Your task to perform on an android device: Open calendar and show me the first week of next month Image 0: 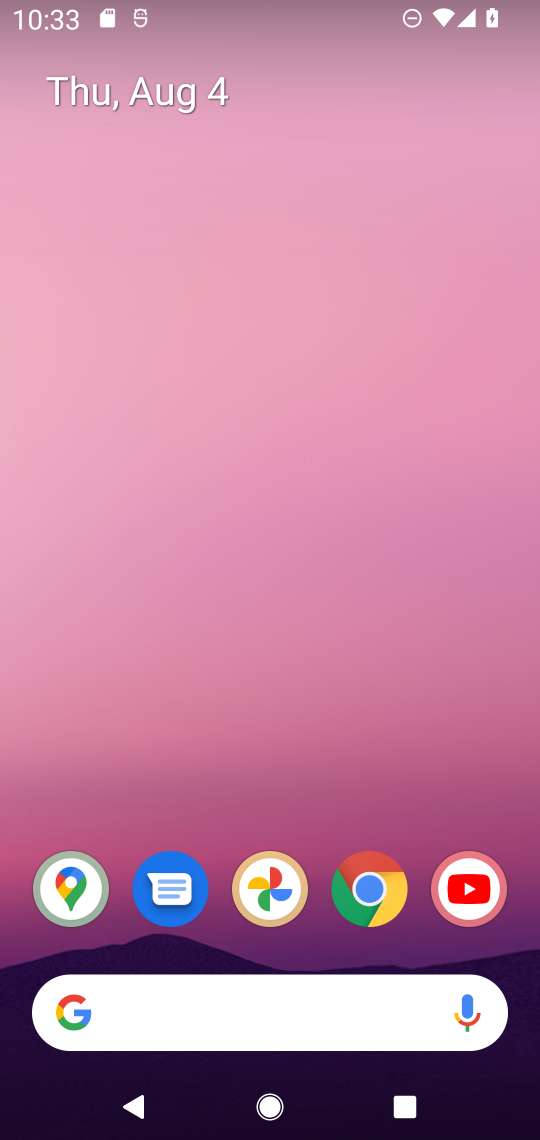
Step 0: press home button
Your task to perform on an android device: Open calendar and show me the first week of next month Image 1: 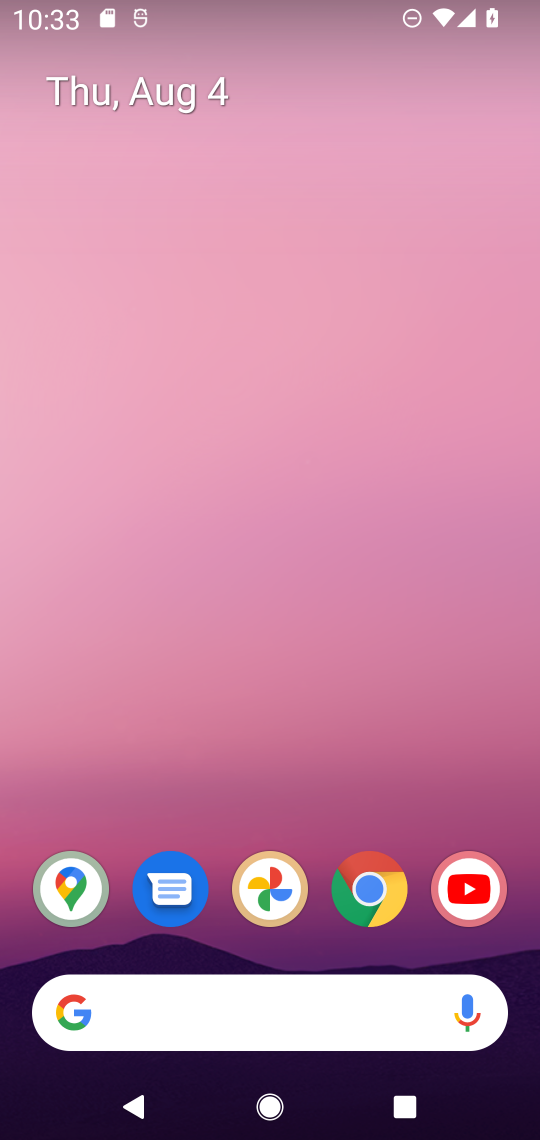
Step 1: drag from (395, 808) to (415, 301)
Your task to perform on an android device: Open calendar and show me the first week of next month Image 2: 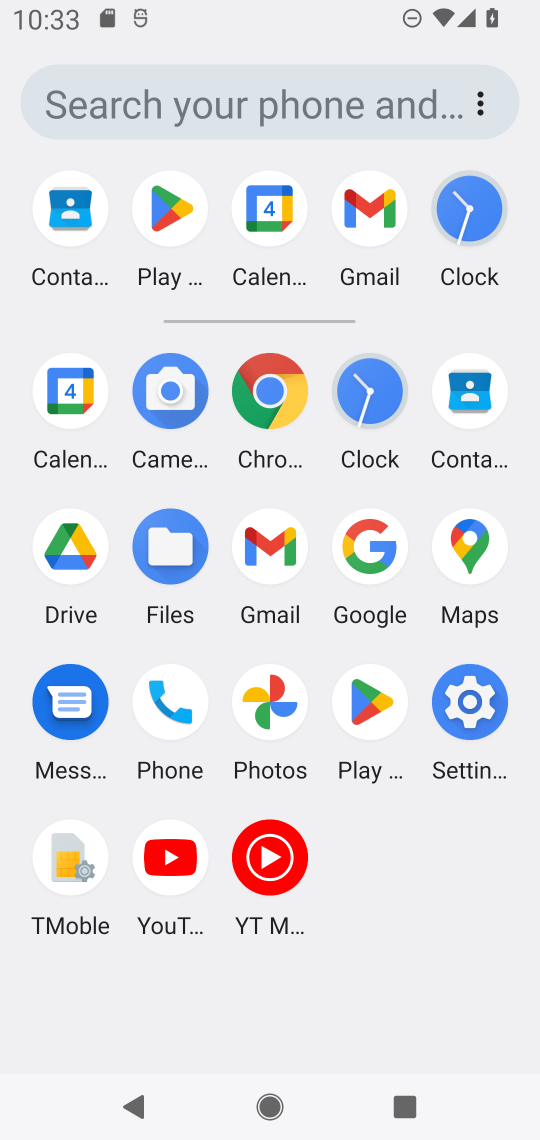
Step 2: click (58, 390)
Your task to perform on an android device: Open calendar and show me the first week of next month Image 3: 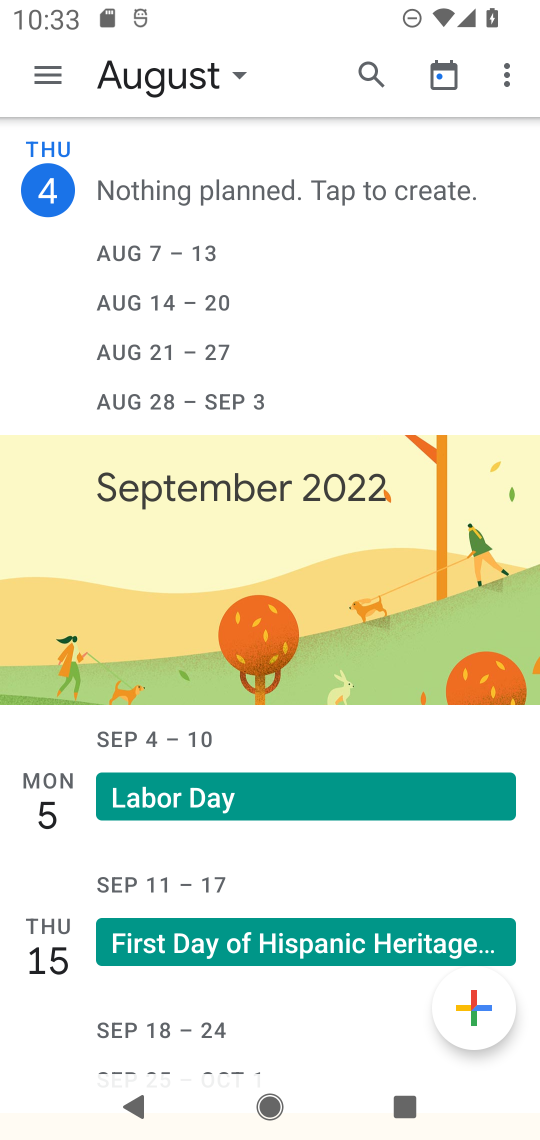
Step 3: click (238, 71)
Your task to perform on an android device: Open calendar and show me the first week of next month Image 4: 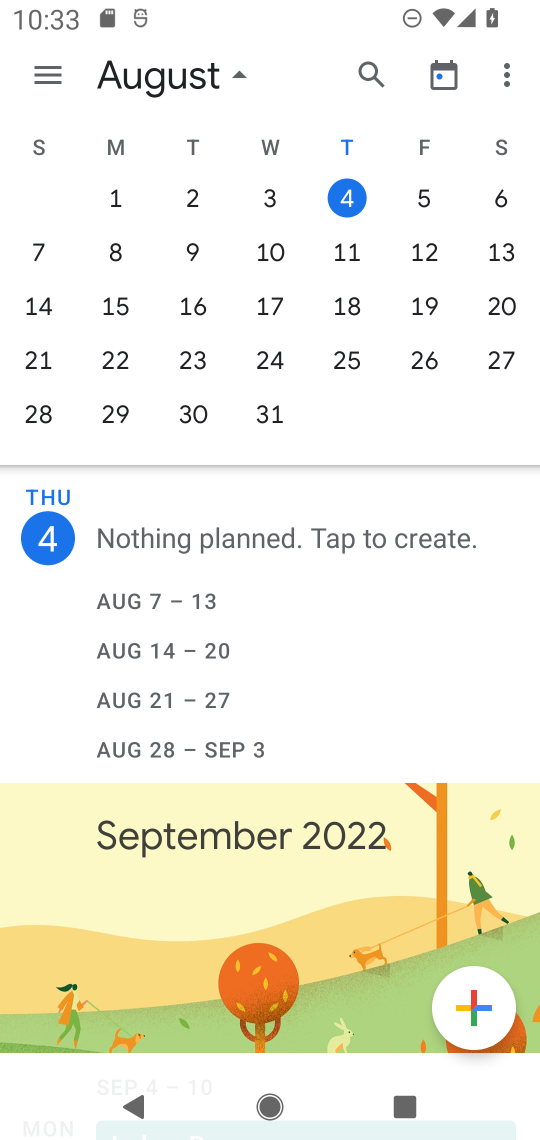
Step 4: task complete